Your task to perform on an android device: When is my next appointment? Image 0: 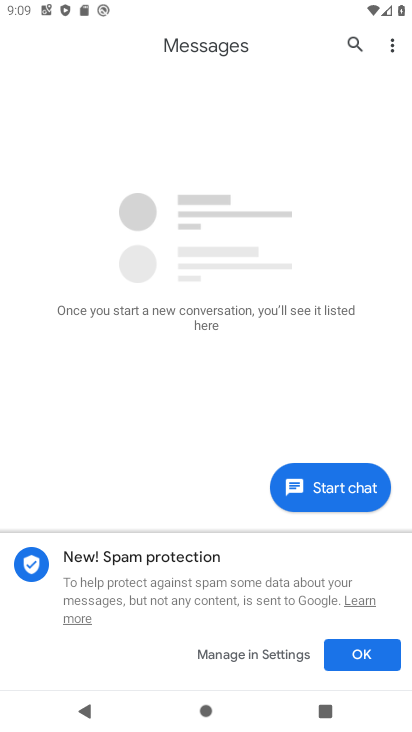
Step 0: press home button
Your task to perform on an android device: When is my next appointment? Image 1: 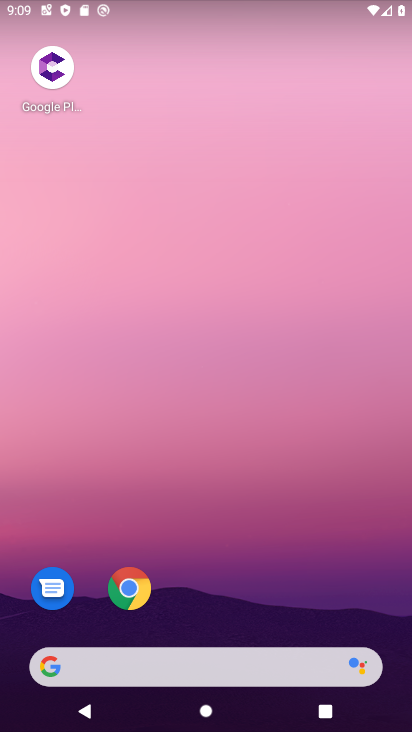
Step 1: drag from (87, 359) to (381, 358)
Your task to perform on an android device: When is my next appointment? Image 2: 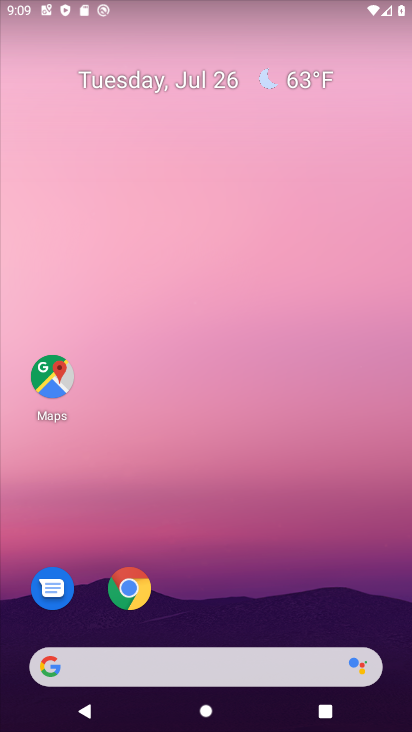
Step 2: click (104, 78)
Your task to perform on an android device: When is my next appointment? Image 3: 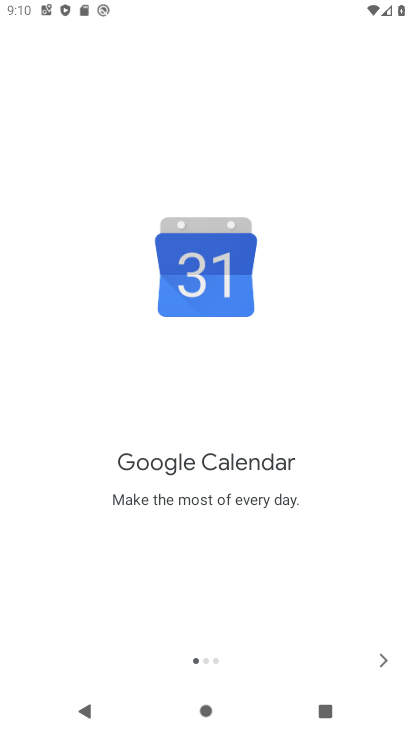
Step 3: click (380, 665)
Your task to perform on an android device: When is my next appointment? Image 4: 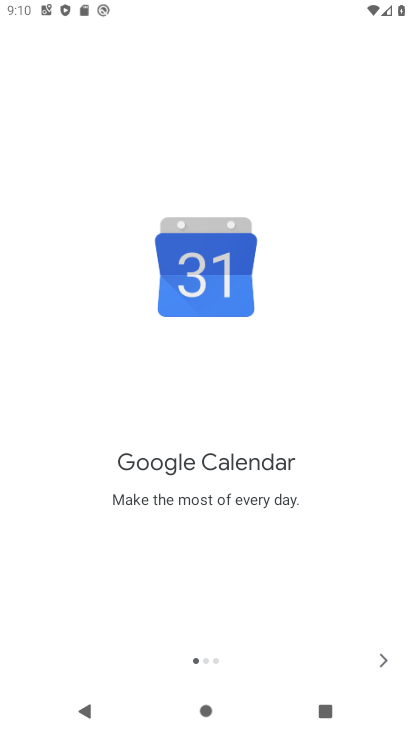
Step 4: click (380, 665)
Your task to perform on an android device: When is my next appointment? Image 5: 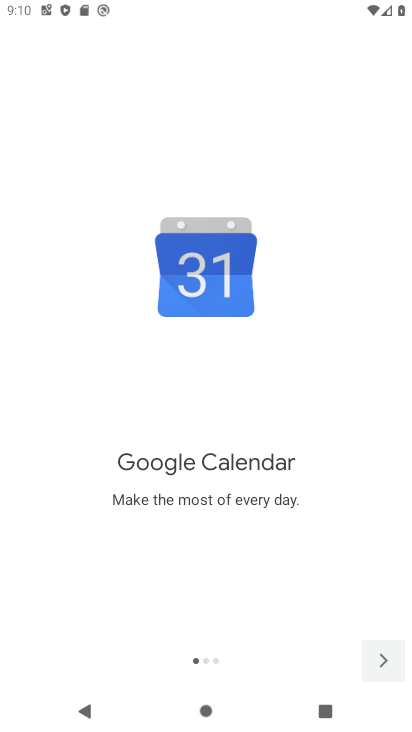
Step 5: click (380, 665)
Your task to perform on an android device: When is my next appointment? Image 6: 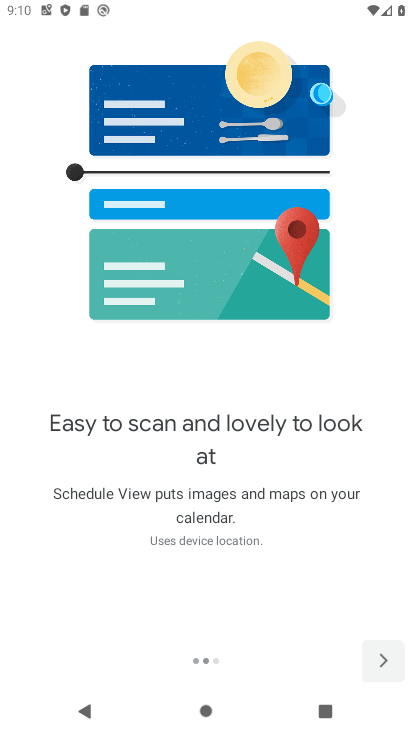
Step 6: click (380, 665)
Your task to perform on an android device: When is my next appointment? Image 7: 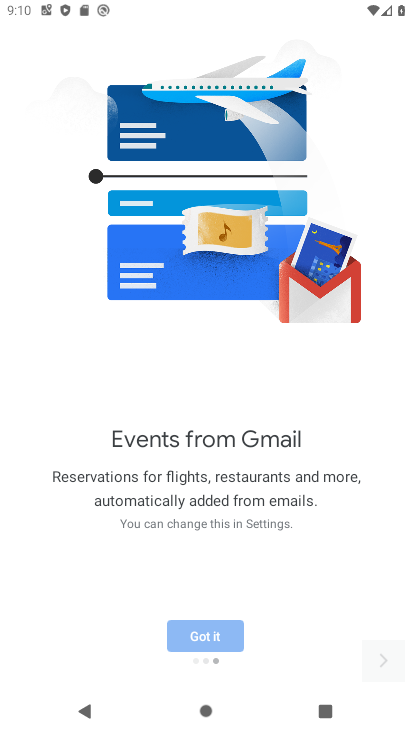
Step 7: click (380, 665)
Your task to perform on an android device: When is my next appointment? Image 8: 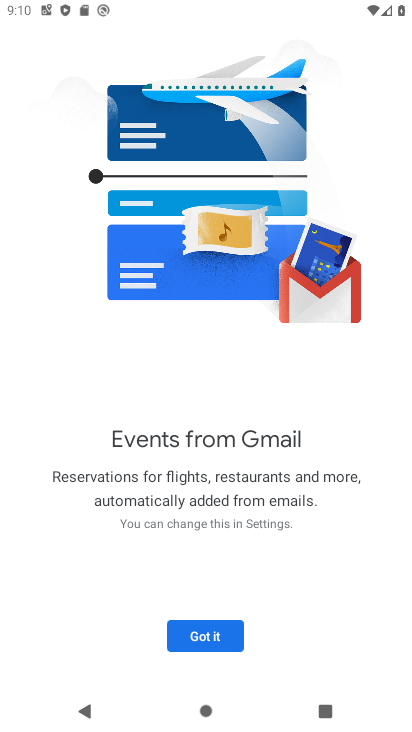
Step 8: click (213, 640)
Your task to perform on an android device: When is my next appointment? Image 9: 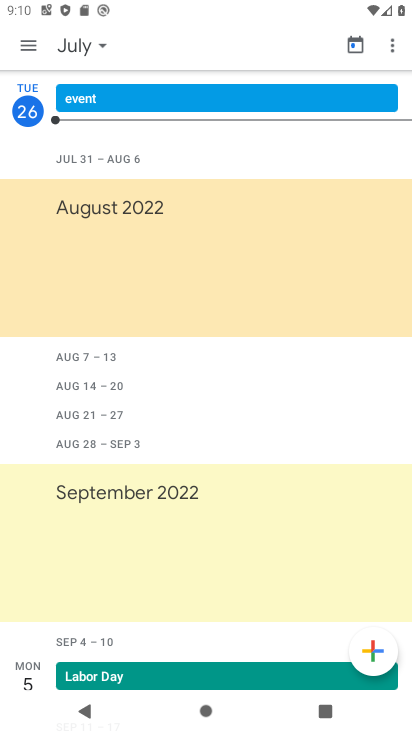
Step 9: task complete